Your task to perform on an android device: change the clock display to show seconds Image 0: 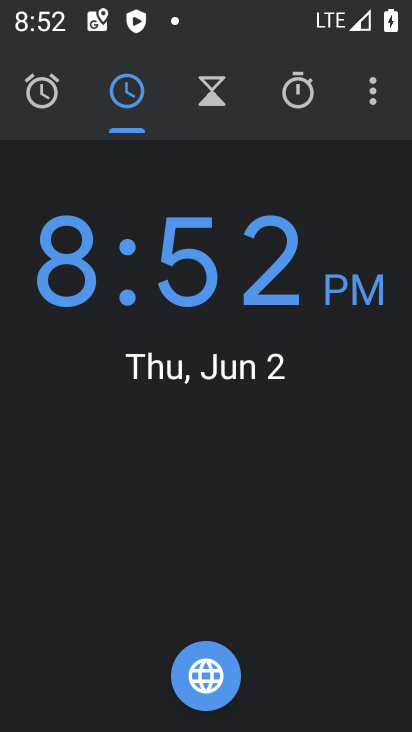
Step 0: click (373, 92)
Your task to perform on an android device: change the clock display to show seconds Image 1: 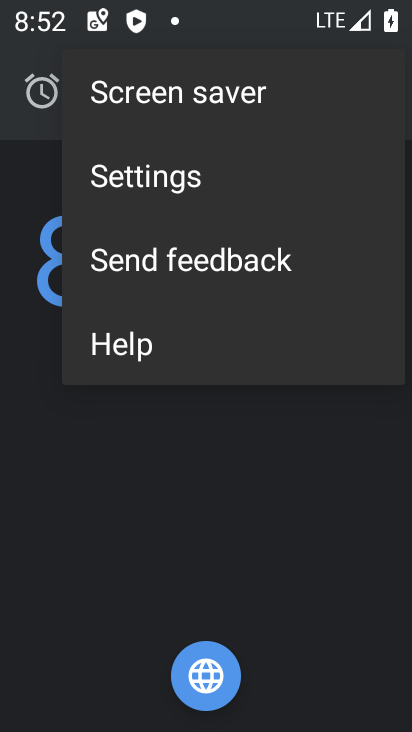
Step 1: click (190, 184)
Your task to perform on an android device: change the clock display to show seconds Image 2: 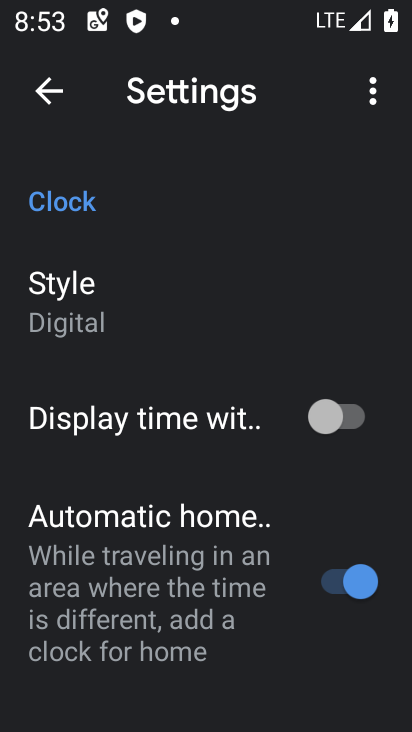
Step 2: click (322, 423)
Your task to perform on an android device: change the clock display to show seconds Image 3: 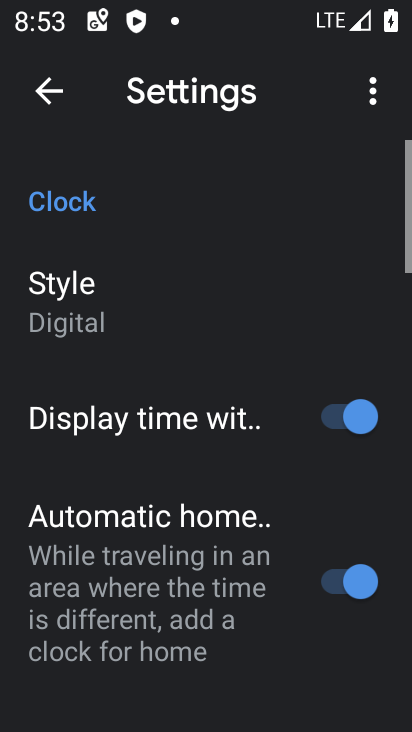
Step 3: task complete